Your task to perform on an android device: Go to battery settings Image 0: 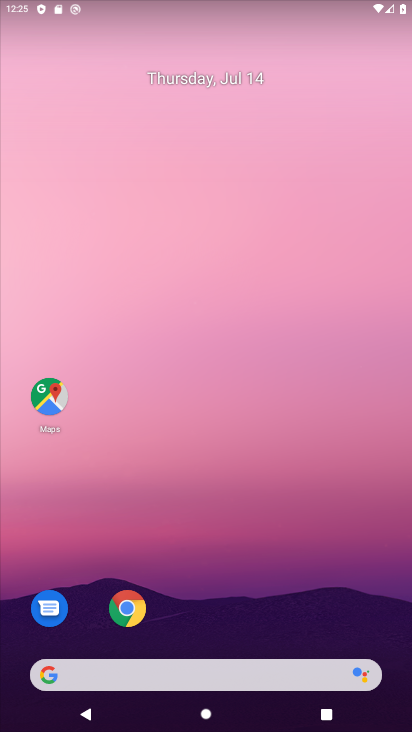
Step 0: drag from (191, 441) to (220, 270)
Your task to perform on an android device: Go to battery settings Image 1: 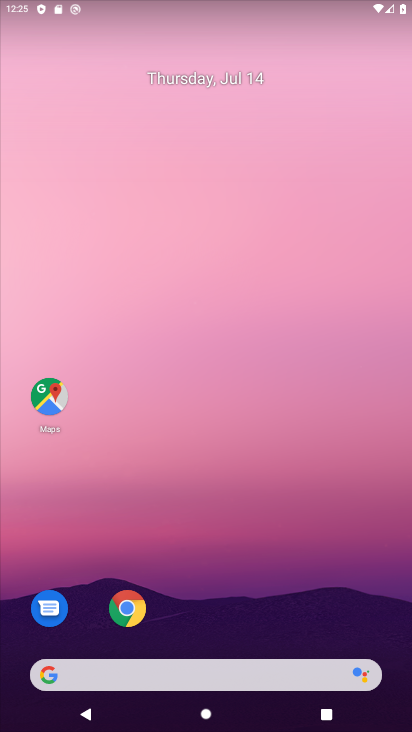
Step 1: drag from (195, 652) to (251, 130)
Your task to perform on an android device: Go to battery settings Image 2: 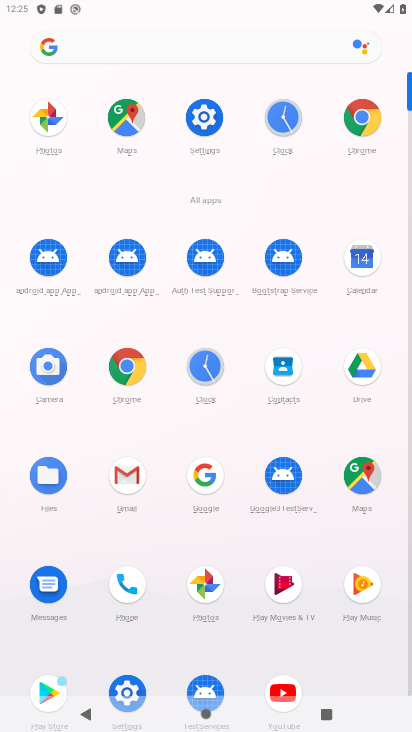
Step 2: click (198, 114)
Your task to perform on an android device: Go to battery settings Image 3: 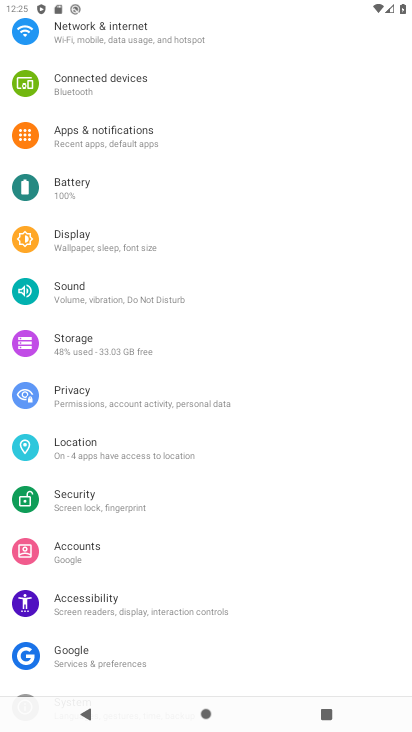
Step 3: click (108, 193)
Your task to perform on an android device: Go to battery settings Image 4: 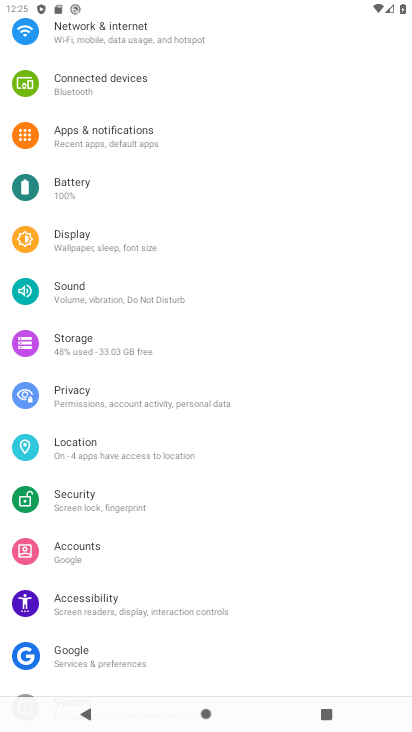
Step 4: click (106, 193)
Your task to perform on an android device: Go to battery settings Image 5: 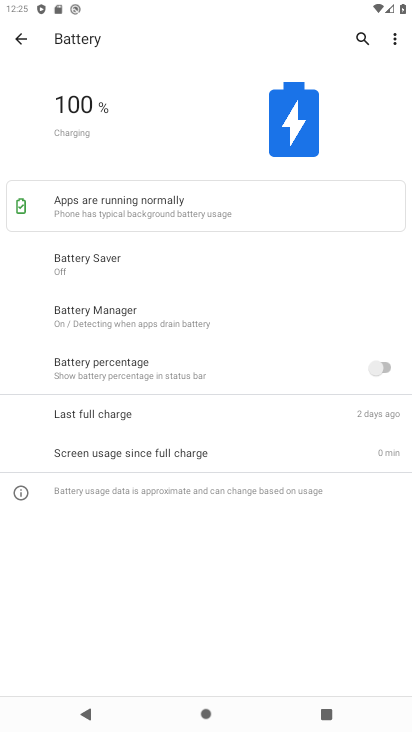
Step 5: task complete